Your task to perform on an android device: check storage Image 0: 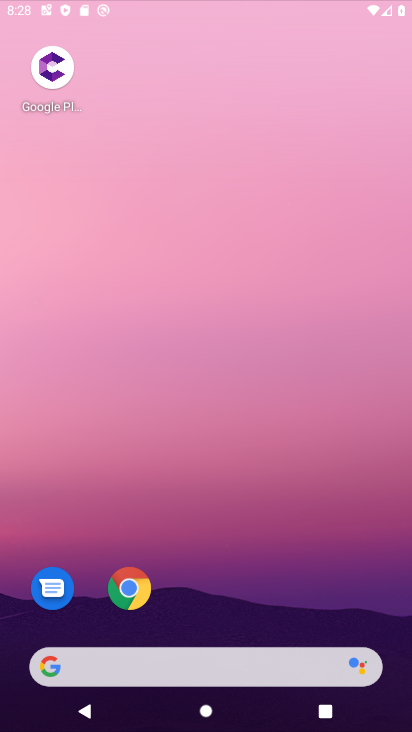
Step 0: drag from (151, 636) to (193, 312)
Your task to perform on an android device: check storage Image 1: 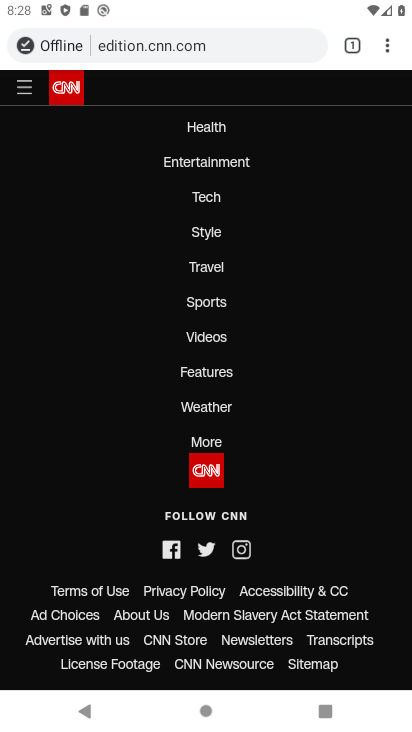
Step 1: press home button
Your task to perform on an android device: check storage Image 2: 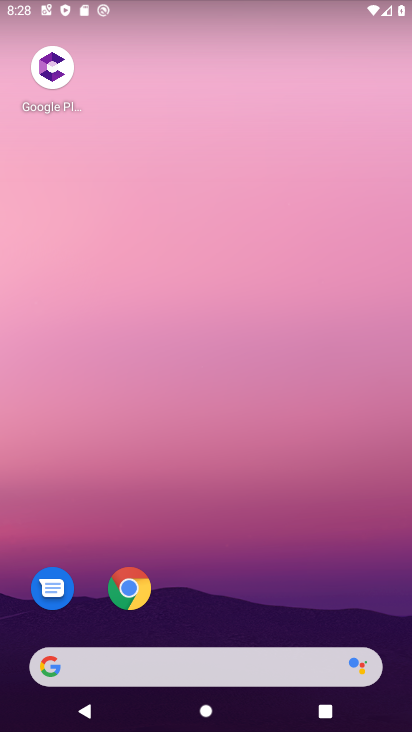
Step 2: drag from (141, 644) to (177, 0)
Your task to perform on an android device: check storage Image 3: 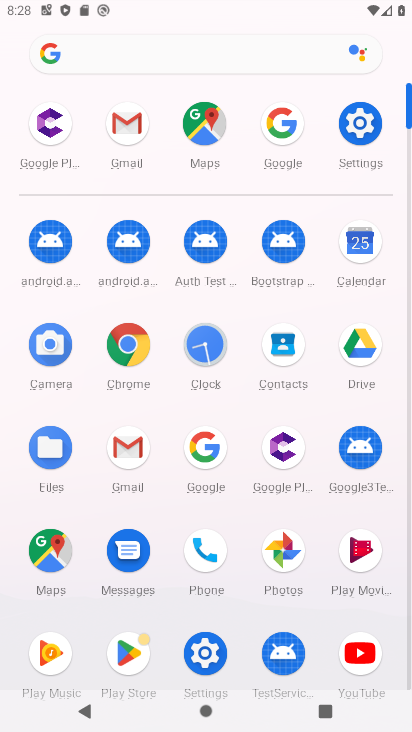
Step 3: click (352, 124)
Your task to perform on an android device: check storage Image 4: 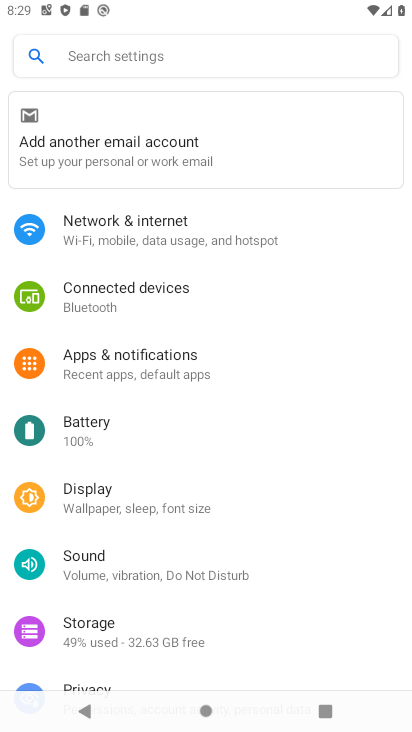
Step 4: click (82, 617)
Your task to perform on an android device: check storage Image 5: 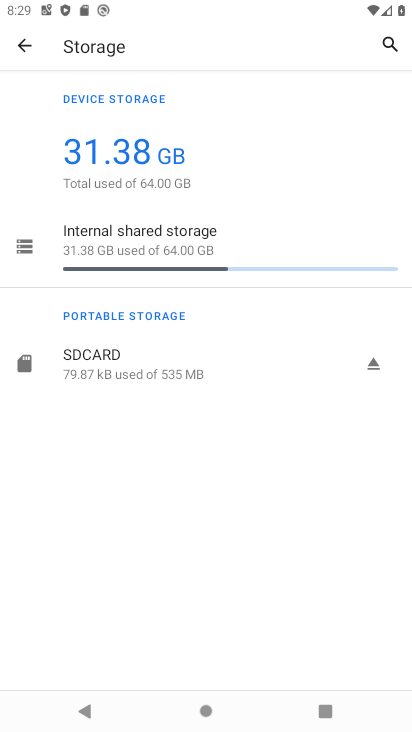
Step 5: task complete